Your task to perform on an android device: Show me popular videos on Youtube Image 0: 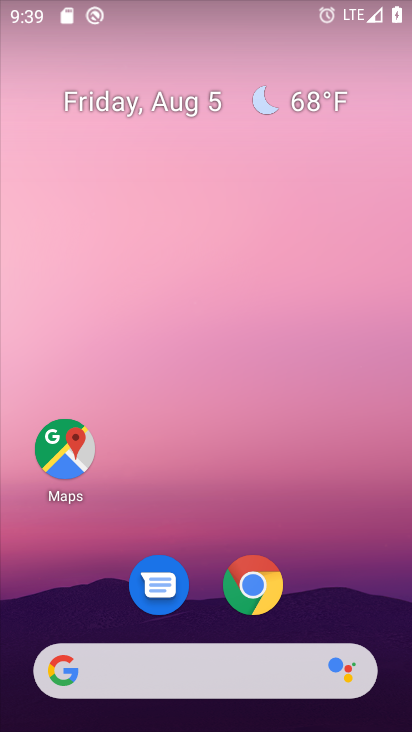
Step 0: drag from (229, 532) to (255, 0)
Your task to perform on an android device: Show me popular videos on Youtube Image 1: 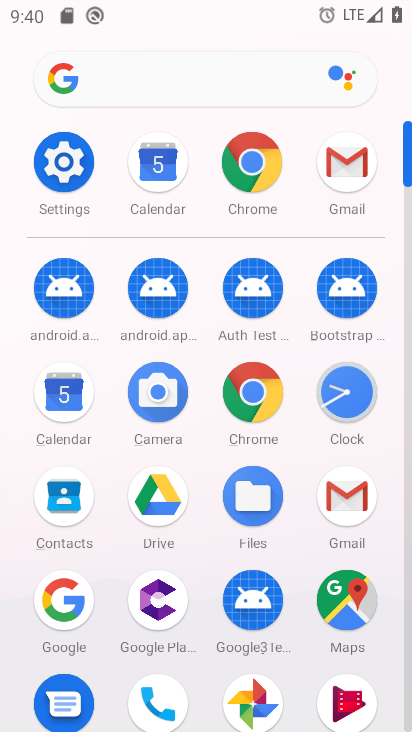
Step 1: drag from (302, 492) to (307, 156)
Your task to perform on an android device: Show me popular videos on Youtube Image 2: 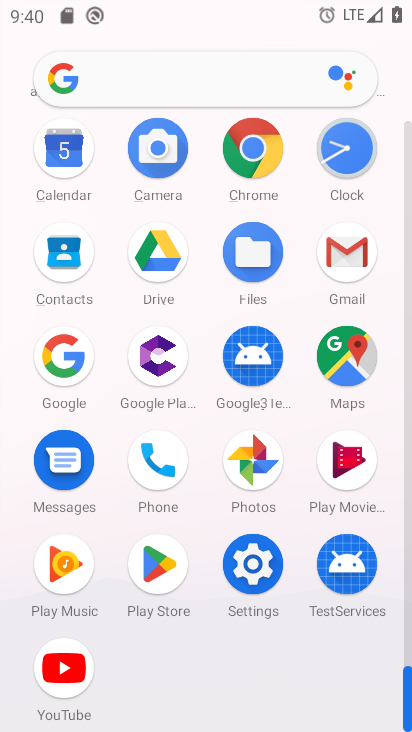
Step 2: click (80, 663)
Your task to perform on an android device: Show me popular videos on Youtube Image 3: 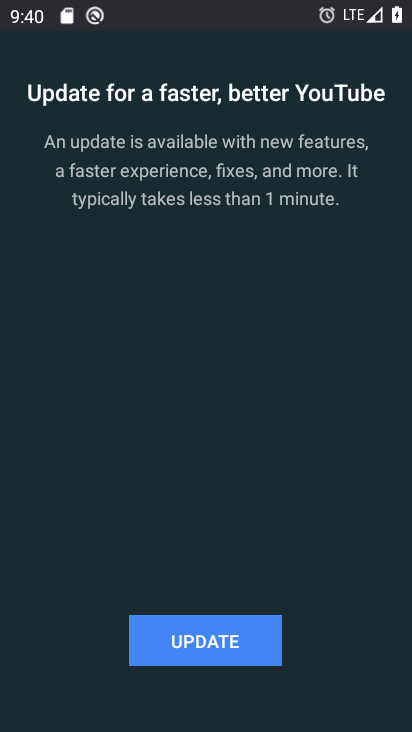
Step 3: click (166, 645)
Your task to perform on an android device: Show me popular videos on Youtube Image 4: 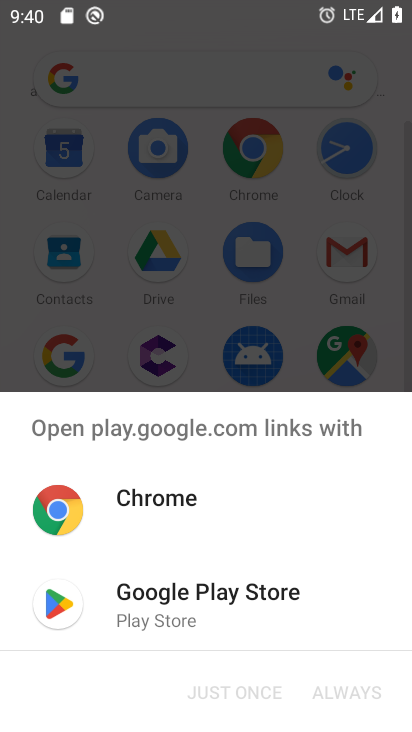
Step 4: click (182, 604)
Your task to perform on an android device: Show me popular videos on Youtube Image 5: 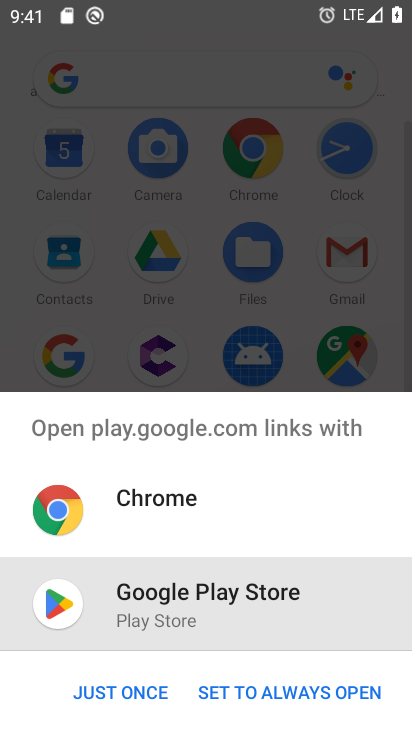
Step 5: click (152, 685)
Your task to perform on an android device: Show me popular videos on Youtube Image 6: 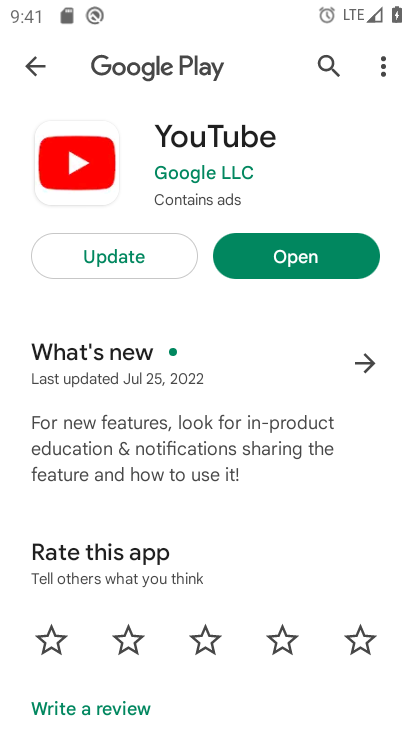
Step 6: click (182, 262)
Your task to perform on an android device: Show me popular videos on Youtube Image 7: 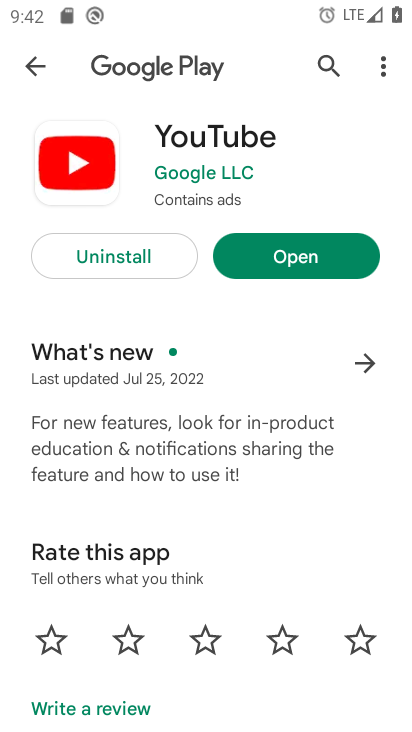
Step 7: click (334, 261)
Your task to perform on an android device: Show me popular videos on Youtube Image 8: 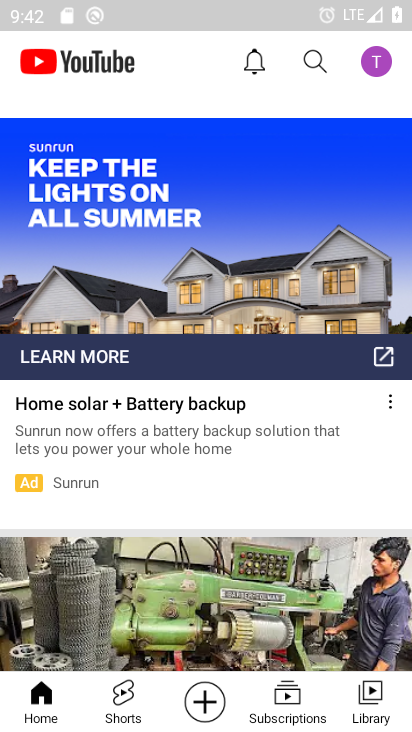
Step 8: click (316, 61)
Your task to perform on an android device: Show me popular videos on Youtube Image 9: 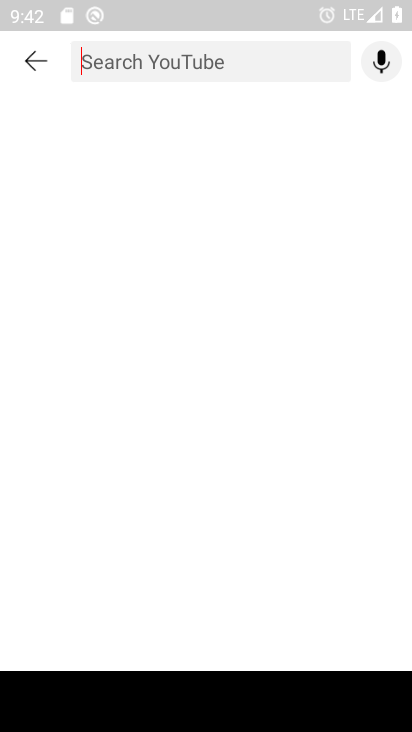
Step 9: click (227, 58)
Your task to perform on an android device: Show me popular videos on Youtube Image 10: 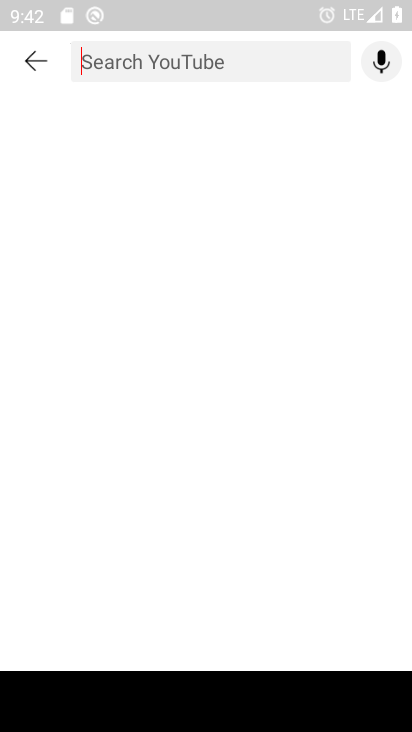
Step 10: type "popular videos"
Your task to perform on an android device: Show me popular videos on Youtube Image 11: 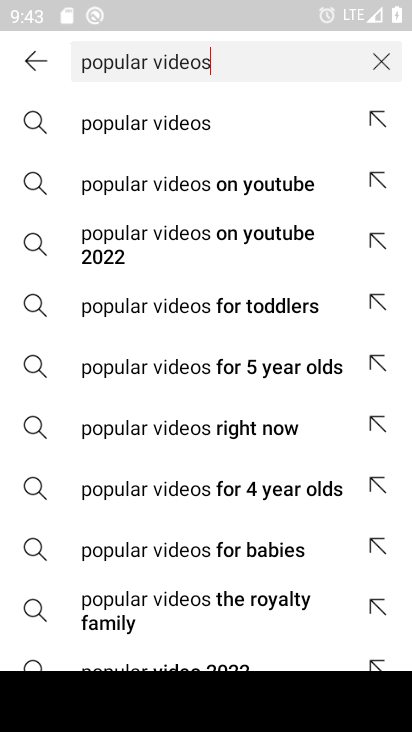
Step 11: click (239, 185)
Your task to perform on an android device: Show me popular videos on Youtube Image 12: 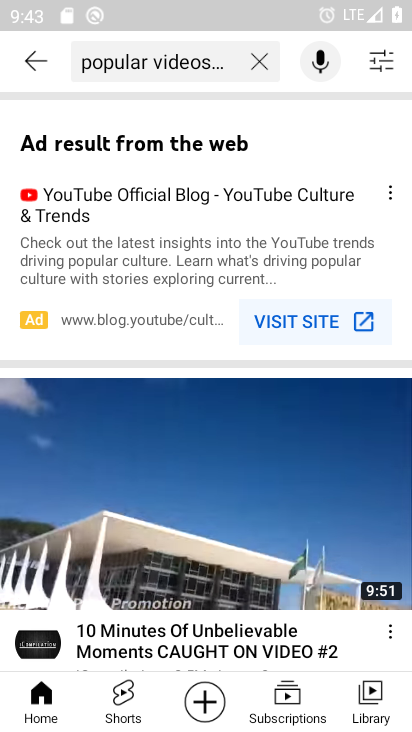
Step 12: task complete